Your task to perform on an android device: change text size in settings app Image 0: 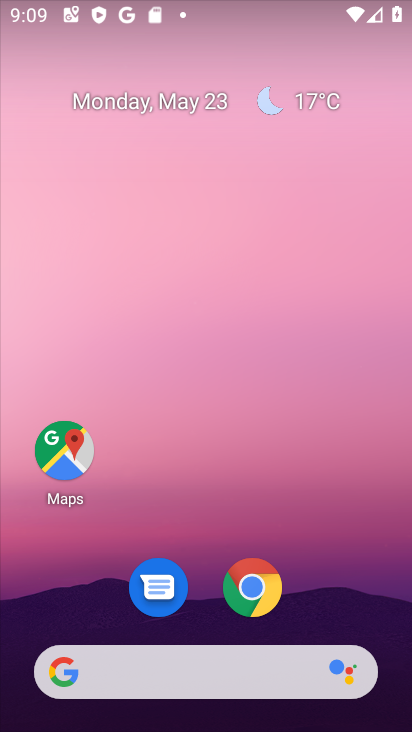
Step 0: drag from (227, 510) to (253, 38)
Your task to perform on an android device: change text size in settings app Image 1: 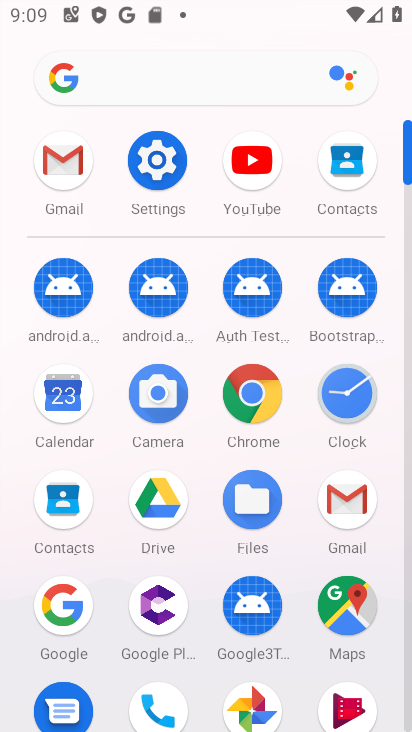
Step 1: click (155, 153)
Your task to perform on an android device: change text size in settings app Image 2: 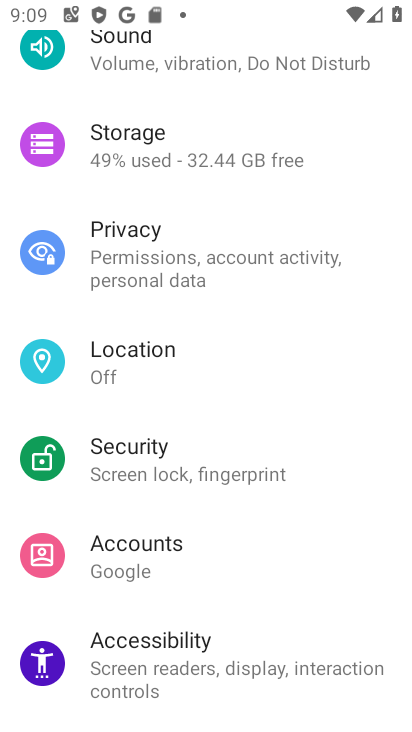
Step 2: drag from (165, 166) to (192, 727)
Your task to perform on an android device: change text size in settings app Image 3: 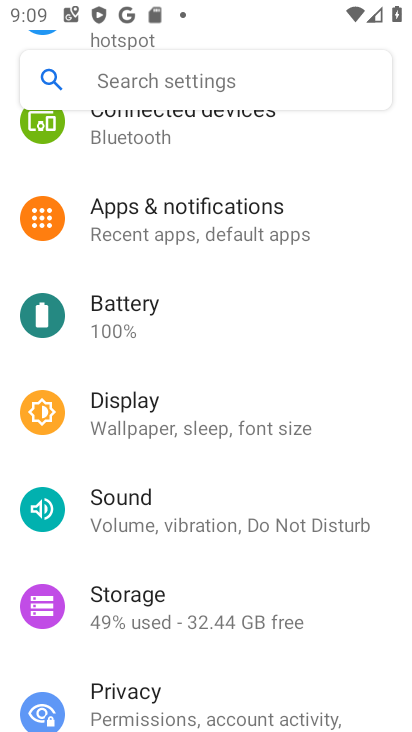
Step 3: click (142, 74)
Your task to perform on an android device: change text size in settings app Image 4: 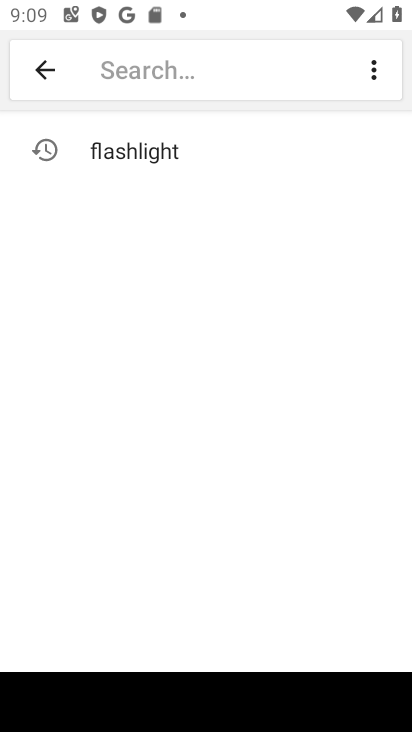
Step 4: type "text size"
Your task to perform on an android device: change text size in settings app Image 5: 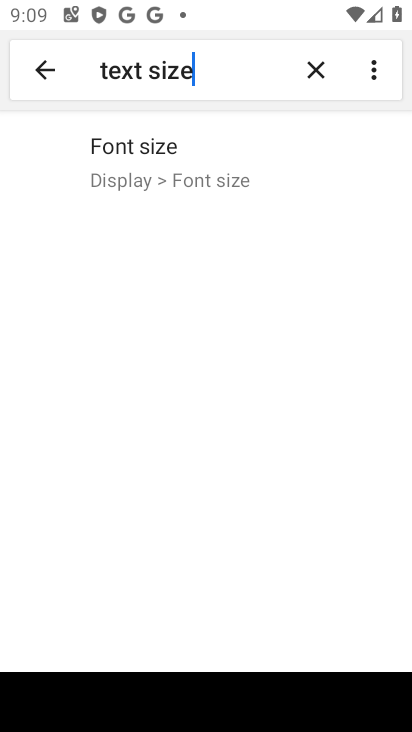
Step 5: click (168, 147)
Your task to perform on an android device: change text size in settings app Image 6: 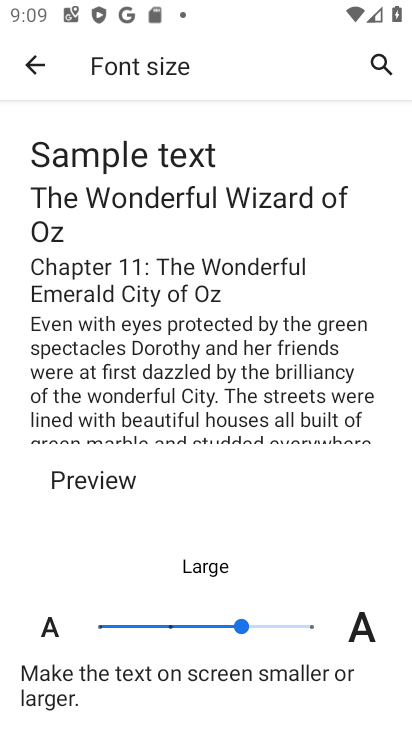
Step 6: task complete